Your task to perform on an android device: open app "Google Play Music" Image 0: 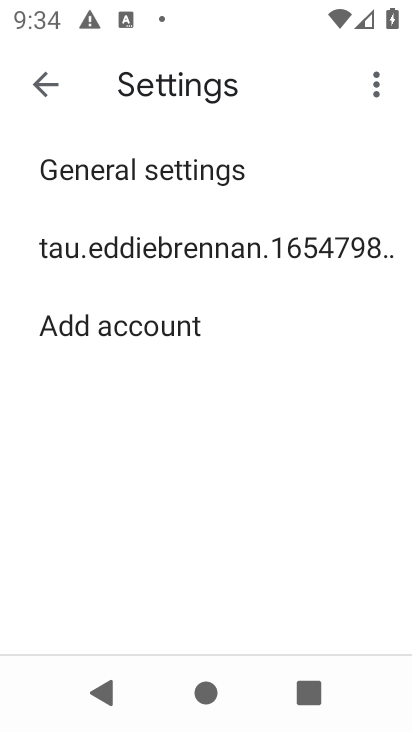
Step 0: press home button
Your task to perform on an android device: open app "Google Play Music" Image 1: 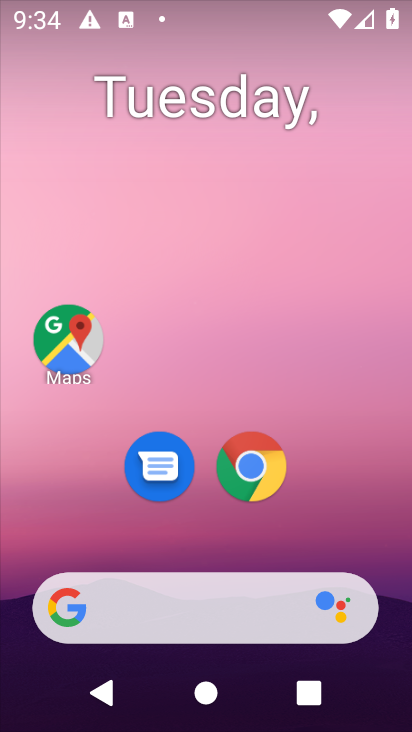
Step 1: drag from (211, 556) to (246, 49)
Your task to perform on an android device: open app "Google Play Music" Image 2: 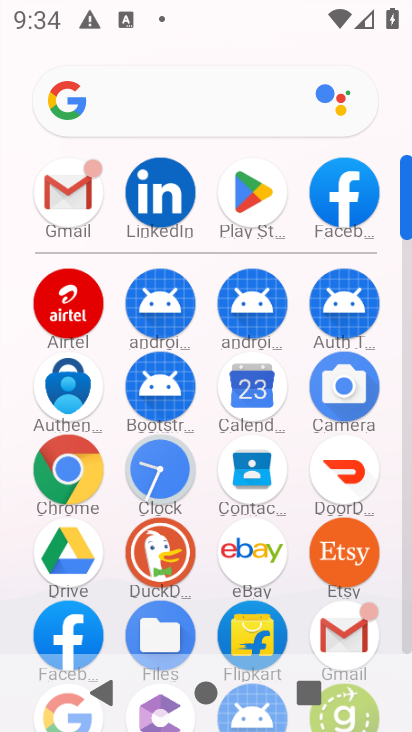
Step 2: click (249, 189)
Your task to perform on an android device: open app "Google Play Music" Image 3: 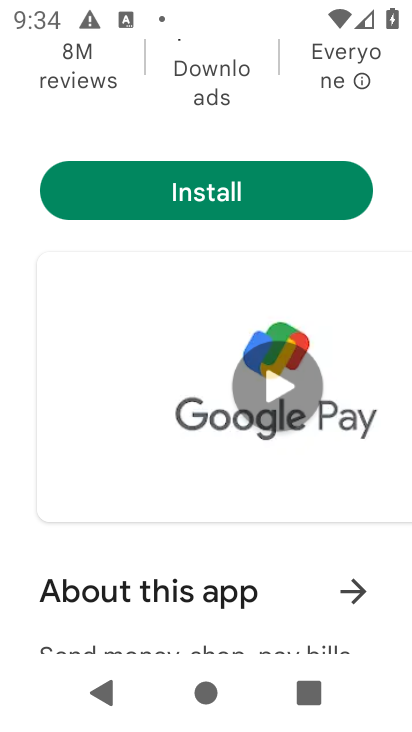
Step 3: drag from (234, 125) to (187, 662)
Your task to perform on an android device: open app "Google Play Music" Image 4: 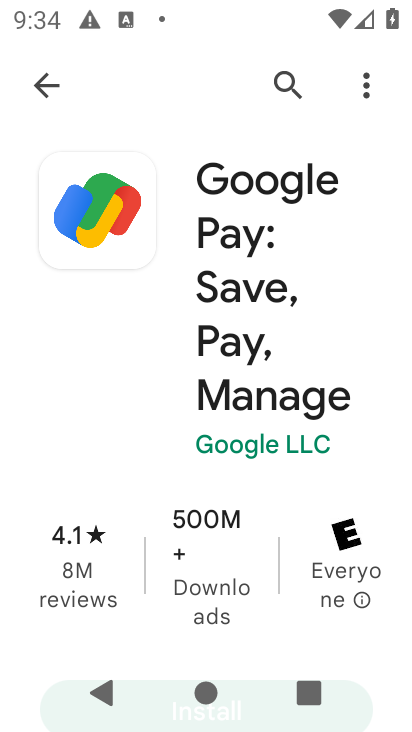
Step 4: click (270, 81)
Your task to perform on an android device: open app "Google Play Music" Image 5: 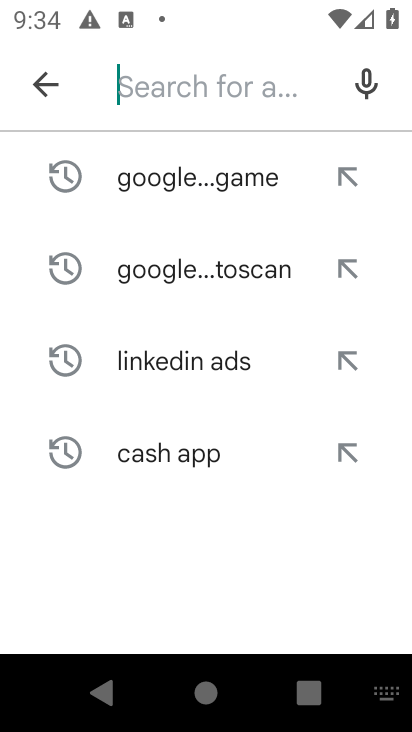
Step 5: click (195, 89)
Your task to perform on an android device: open app "Google Play Music" Image 6: 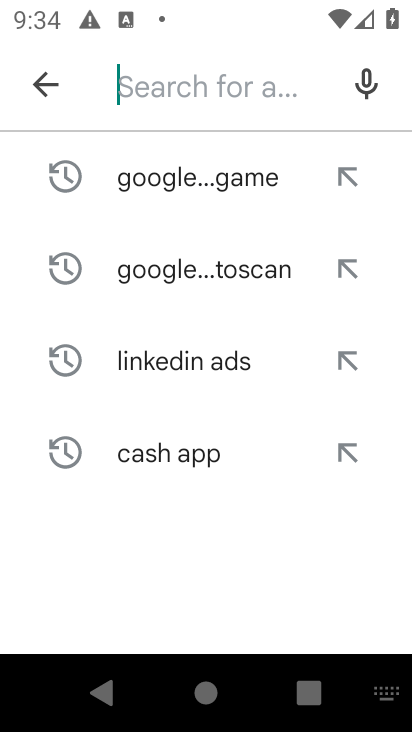
Step 6: type "Google Play Music"
Your task to perform on an android device: open app "Google Play Music" Image 7: 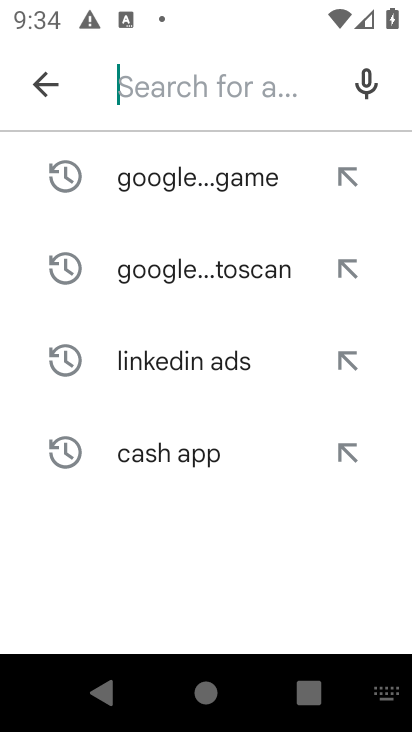
Step 7: click (181, 543)
Your task to perform on an android device: open app "Google Play Music" Image 8: 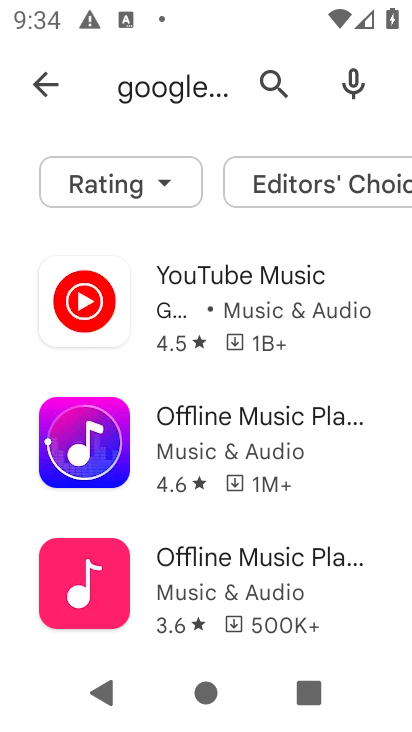
Step 8: task complete